Your task to perform on an android device: add a label to a message in the gmail app Image 0: 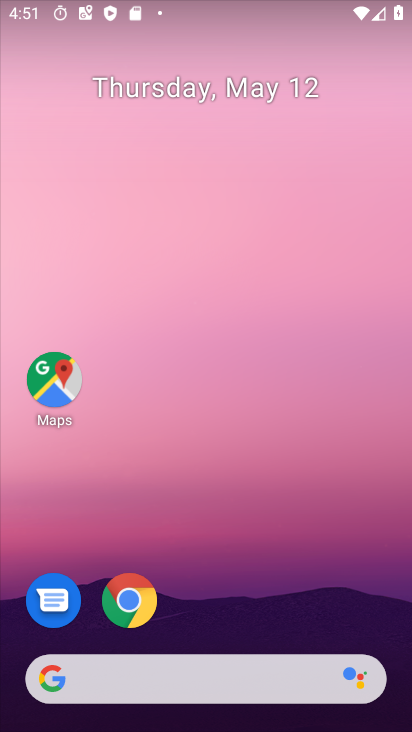
Step 0: drag from (186, 608) to (232, 146)
Your task to perform on an android device: add a label to a message in the gmail app Image 1: 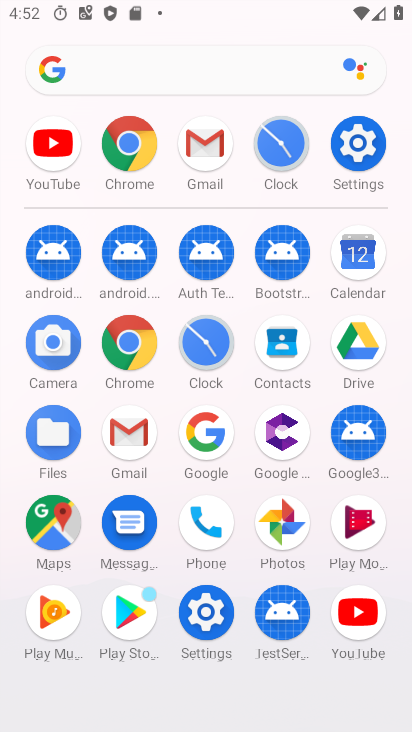
Step 1: click (129, 434)
Your task to perform on an android device: add a label to a message in the gmail app Image 2: 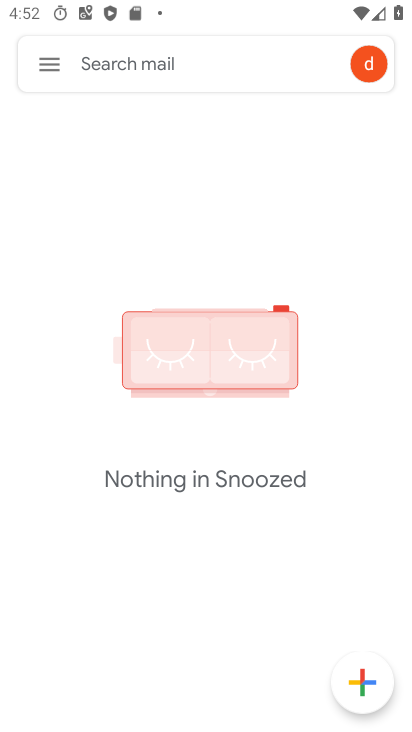
Step 2: click (272, 501)
Your task to perform on an android device: add a label to a message in the gmail app Image 3: 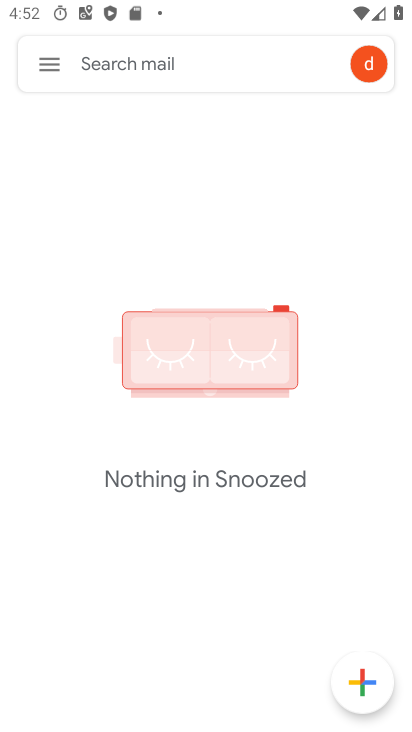
Step 3: click (145, 211)
Your task to perform on an android device: add a label to a message in the gmail app Image 4: 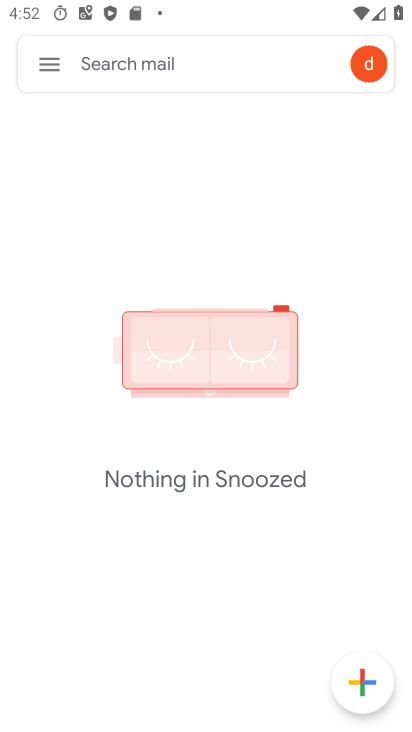
Step 4: click (60, 53)
Your task to perform on an android device: add a label to a message in the gmail app Image 5: 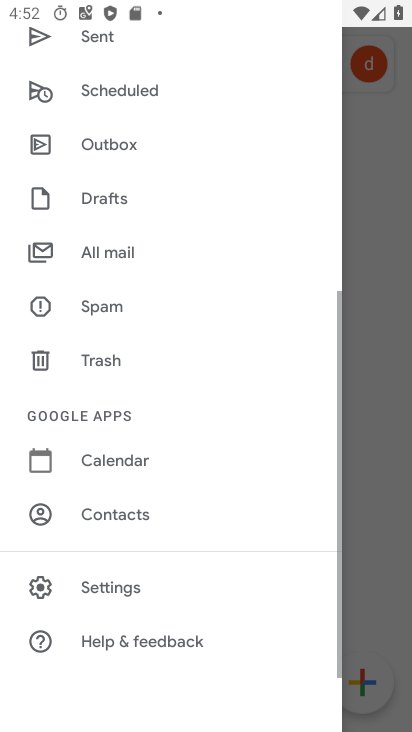
Step 5: drag from (111, 566) to (156, 204)
Your task to perform on an android device: add a label to a message in the gmail app Image 6: 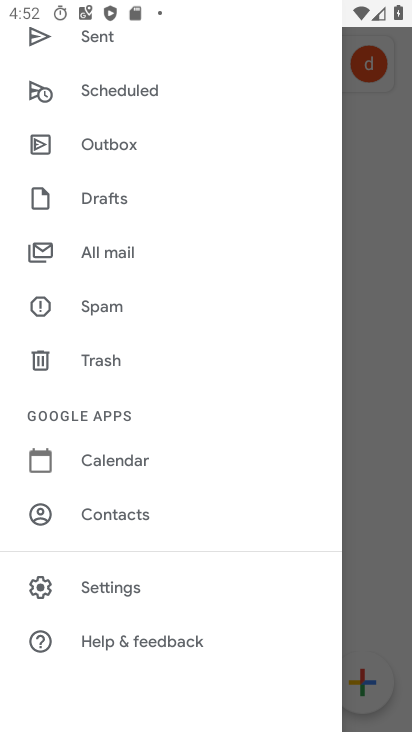
Step 6: click (136, 235)
Your task to perform on an android device: add a label to a message in the gmail app Image 7: 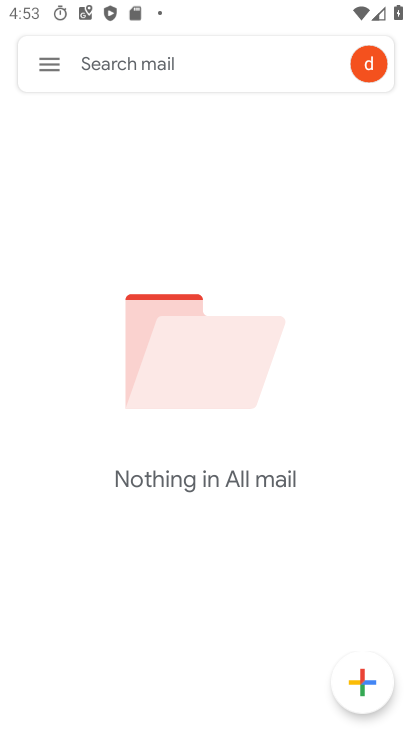
Step 7: task complete